Your task to perform on an android device: What's the weather? Image 0: 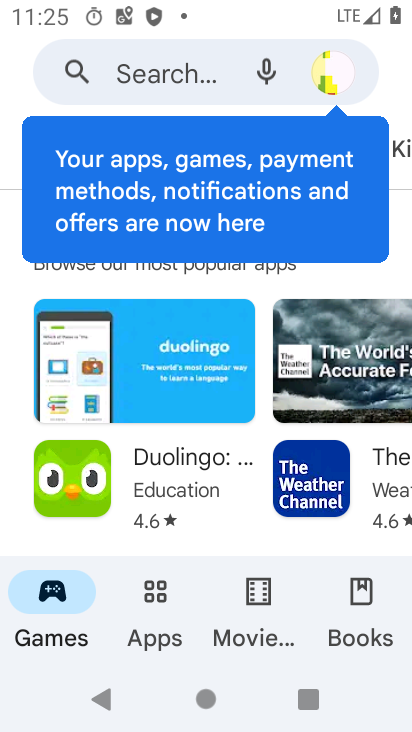
Step 0: press home button
Your task to perform on an android device: What's the weather? Image 1: 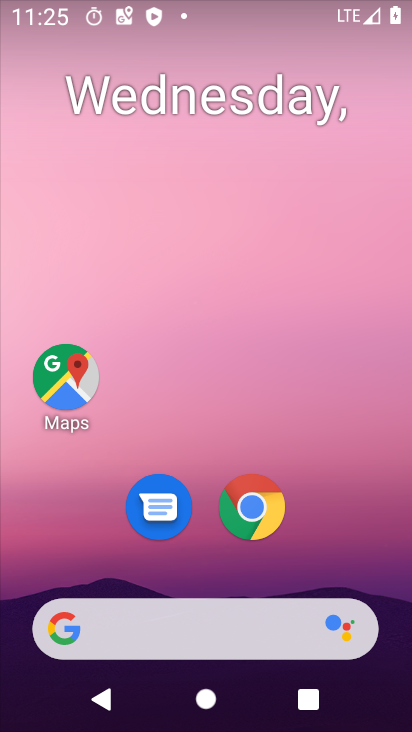
Step 1: drag from (227, 722) to (227, 64)
Your task to perform on an android device: What's the weather? Image 2: 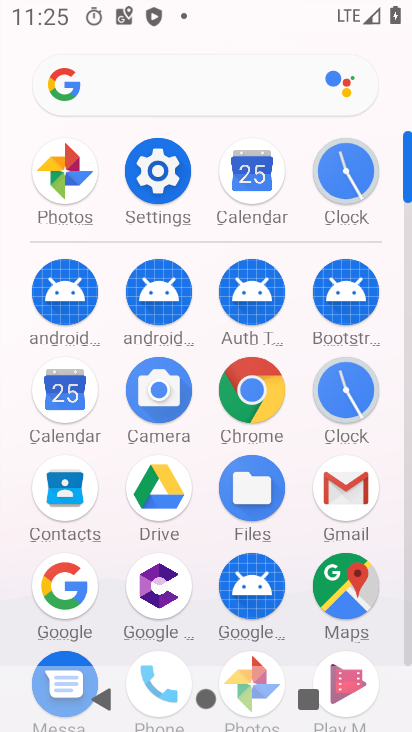
Step 2: click (65, 588)
Your task to perform on an android device: What's the weather? Image 3: 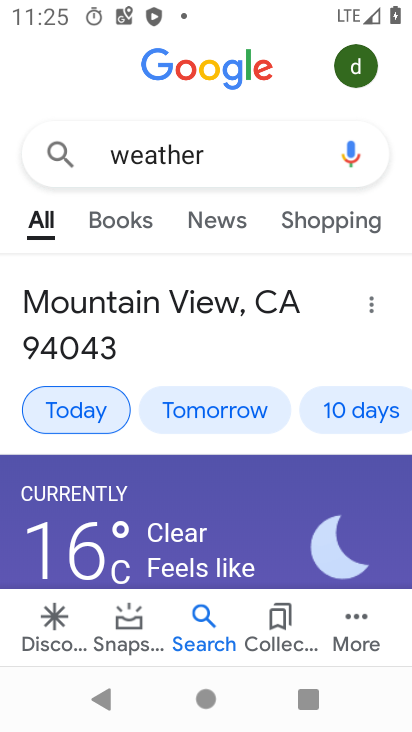
Step 3: click (88, 411)
Your task to perform on an android device: What's the weather? Image 4: 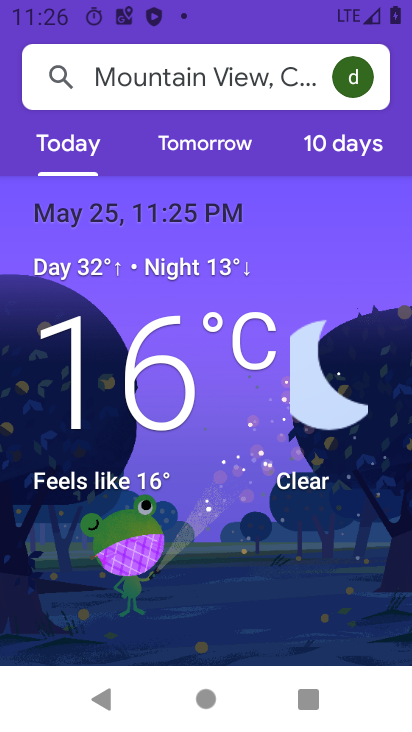
Step 4: task complete